Your task to perform on an android device: What's the weather going to be this weekend? Image 0: 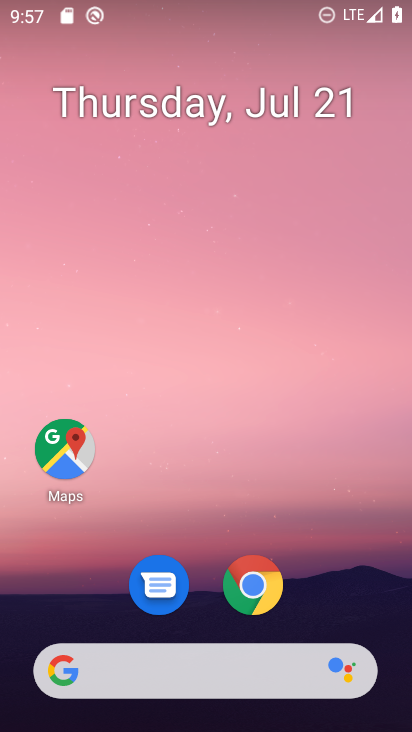
Step 0: click (191, 671)
Your task to perform on an android device: What's the weather going to be this weekend? Image 1: 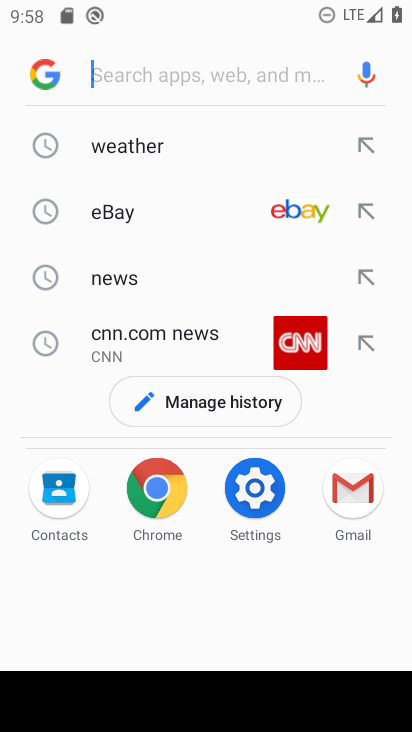
Step 1: click (142, 148)
Your task to perform on an android device: What's the weather going to be this weekend? Image 2: 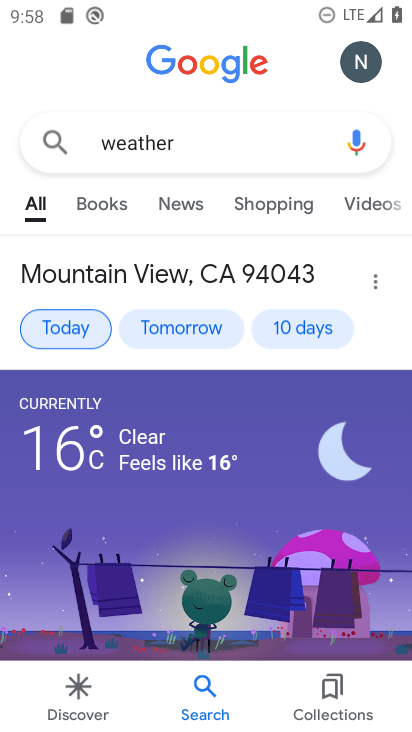
Step 2: click (306, 324)
Your task to perform on an android device: What's the weather going to be this weekend? Image 3: 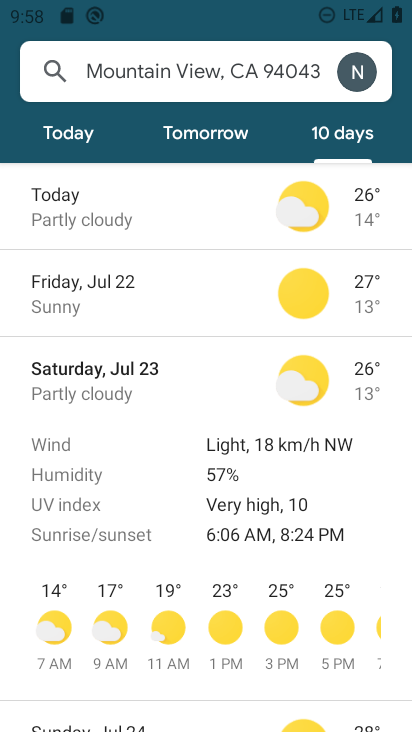
Step 3: task complete